Your task to perform on an android device: check out phone information Image 0: 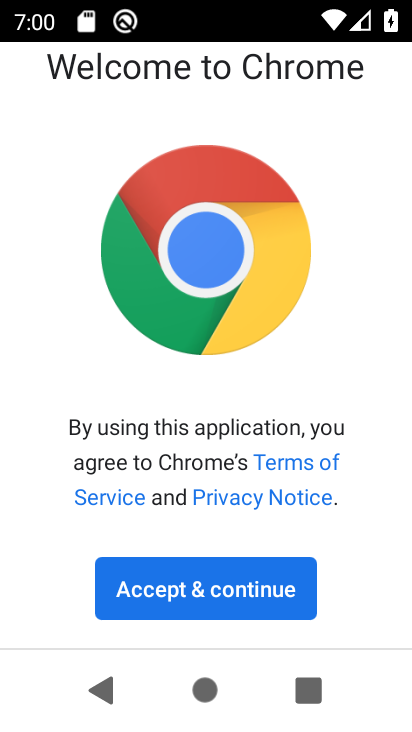
Step 0: press home button
Your task to perform on an android device: check out phone information Image 1: 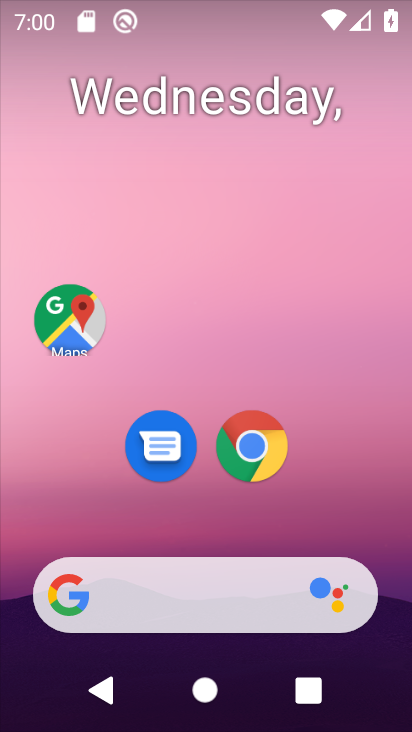
Step 1: drag from (264, 642) to (194, 153)
Your task to perform on an android device: check out phone information Image 2: 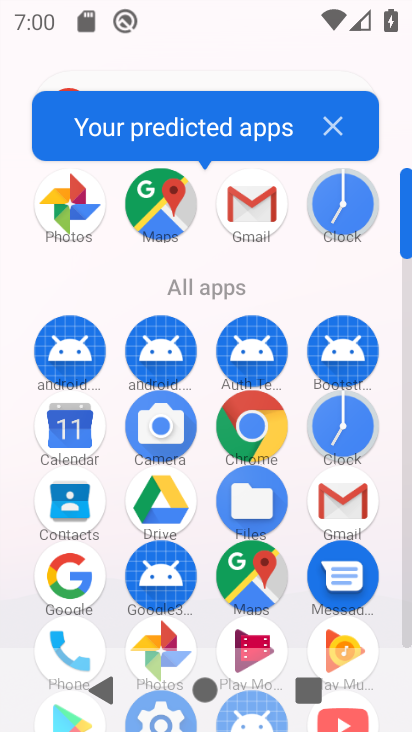
Step 2: drag from (207, 546) to (180, 391)
Your task to perform on an android device: check out phone information Image 3: 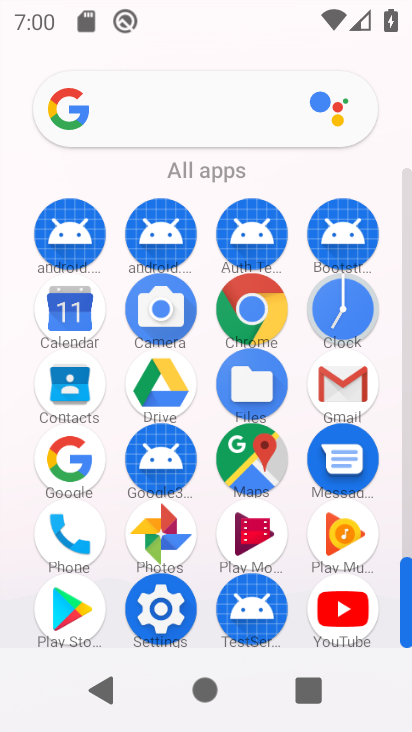
Step 3: click (171, 611)
Your task to perform on an android device: check out phone information Image 4: 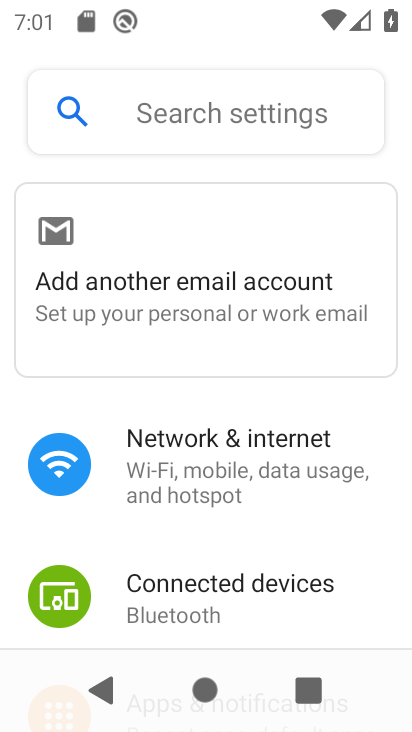
Step 4: click (162, 109)
Your task to perform on an android device: check out phone information Image 5: 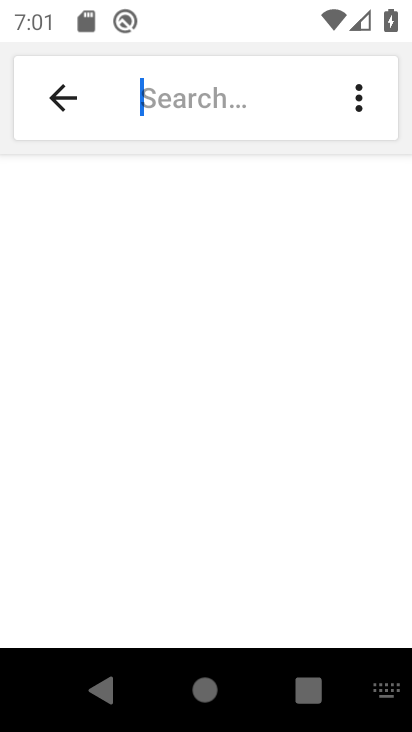
Step 5: click (397, 693)
Your task to perform on an android device: check out phone information Image 6: 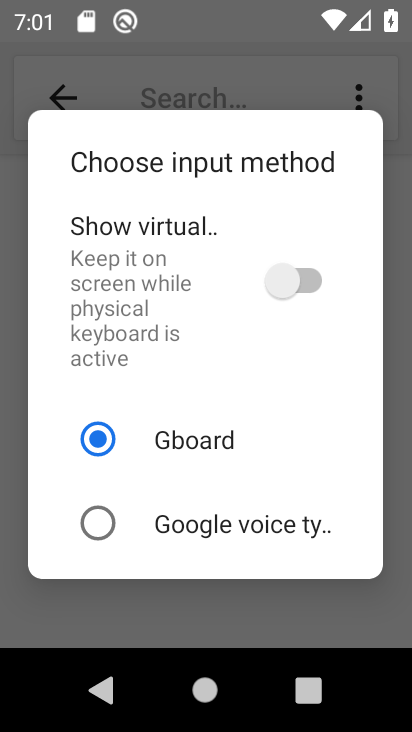
Step 6: click (301, 278)
Your task to perform on an android device: check out phone information Image 7: 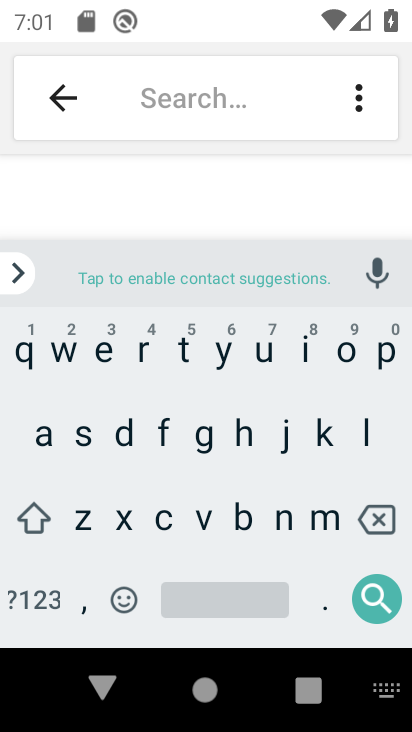
Step 7: click (309, 351)
Your task to perform on an android device: check out phone information Image 8: 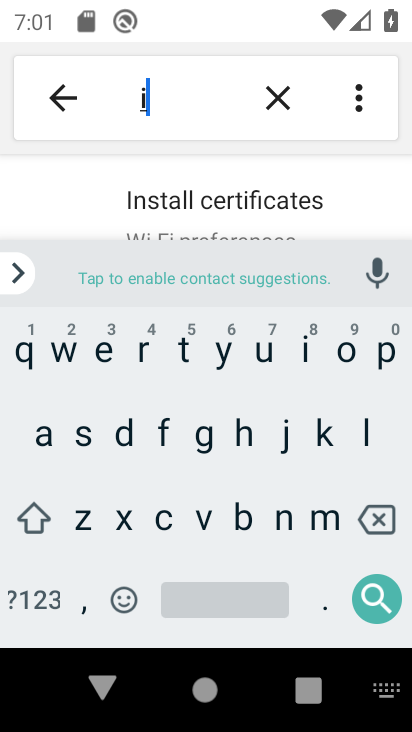
Step 8: click (271, 91)
Your task to perform on an android device: check out phone information Image 9: 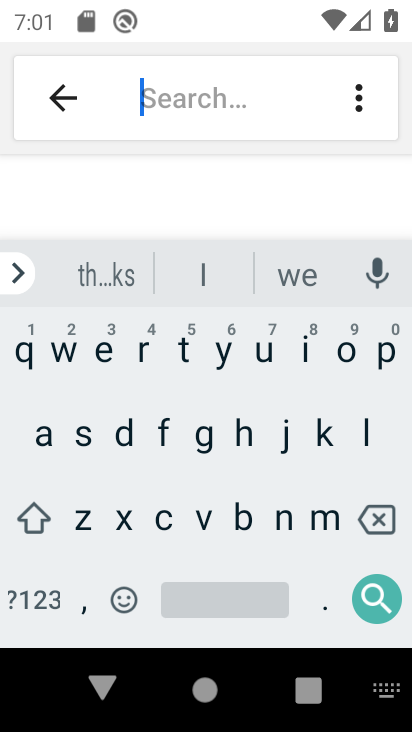
Step 9: click (46, 424)
Your task to perform on an android device: check out phone information Image 10: 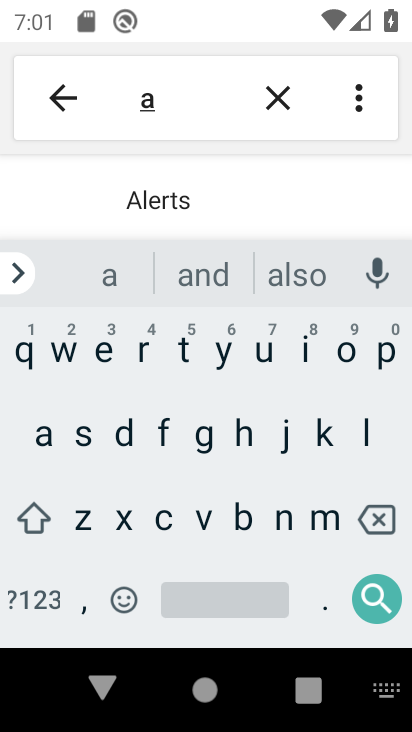
Step 10: click (248, 519)
Your task to perform on an android device: check out phone information Image 11: 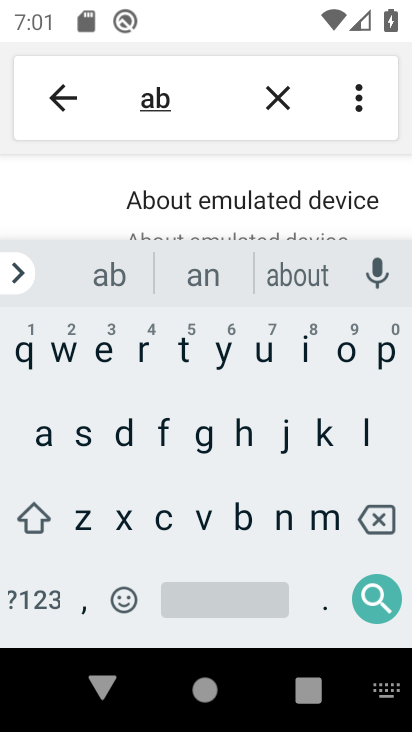
Step 11: click (270, 201)
Your task to perform on an android device: check out phone information Image 12: 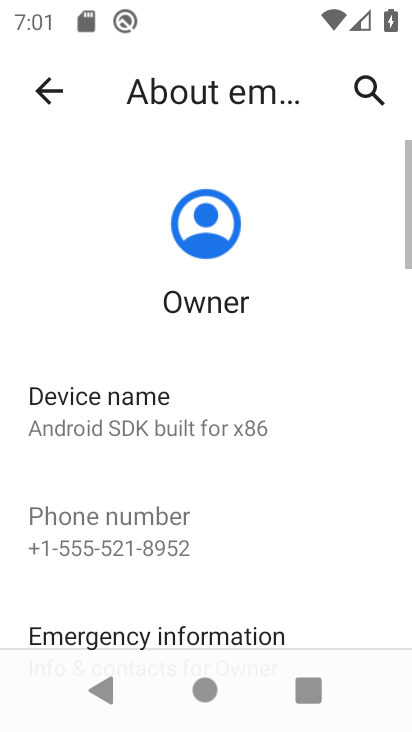
Step 12: task complete